Your task to perform on an android device: Clear the shopping cart on bestbuy.com. Add "razer kraken" to the cart on bestbuy.com Image 0: 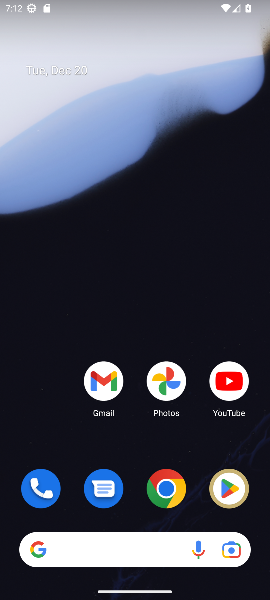
Step 0: press home button
Your task to perform on an android device: Clear the shopping cart on bestbuy.com. Add "razer kraken" to the cart on bestbuy.com Image 1: 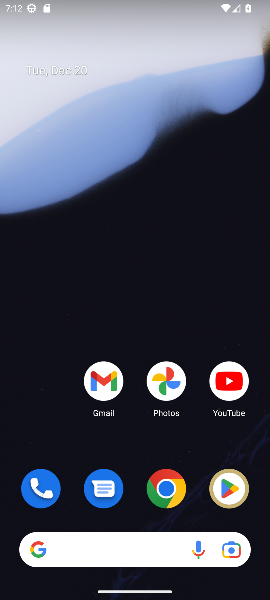
Step 1: drag from (61, 437) to (50, 45)
Your task to perform on an android device: Clear the shopping cart on bestbuy.com. Add "razer kraken" to the cart on bestbuy.com Image 2: 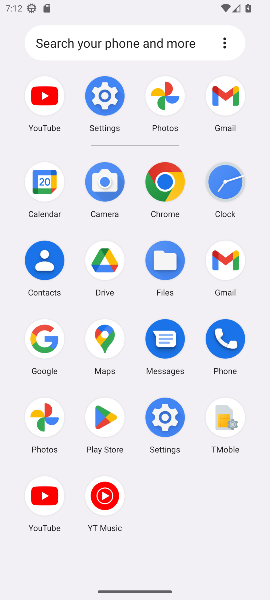
Step 2: click (41, 340)
Your task to perform on an android device: Clear the shopping cart on bestbuy.com. Add "razer kraken" to the cart on bestbuy.com Image 3: 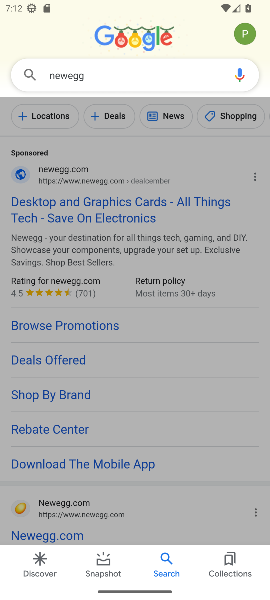
Step 3: click (93, 72)
Your task to perform on an android device: Clear the shopping cart on bestbuy.com. Add "razer kraken" to the cart on bestbuy.com Image 4: 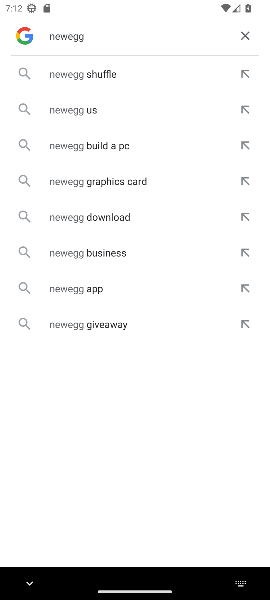
Step 4: click (242, 36)
Your task to perform on an android device: Clear the shopping cart on bestbuy.com. Add "razer kraken" to the cart on bestbuy.com Image 5: 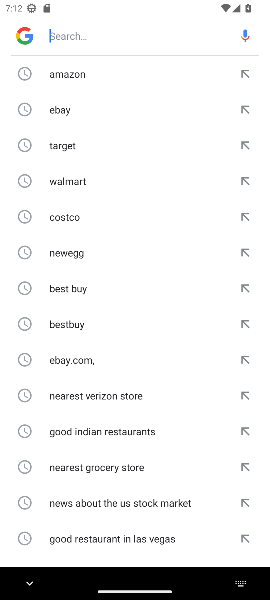
Step 5: type "bestbuy.com"
Your task to perform on an android device: Clear the shopping cart on bestbuy.com. Add "razer kraken" to the cart on bestbuy.com Image 6: 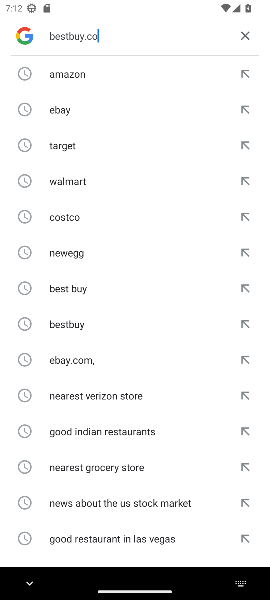
Step 6: press enter
Your task to perform on an android device: Clear the shopping cart on bestbuy.com. Add "razer kraken" to the cart on bestbuy.com Image 7: 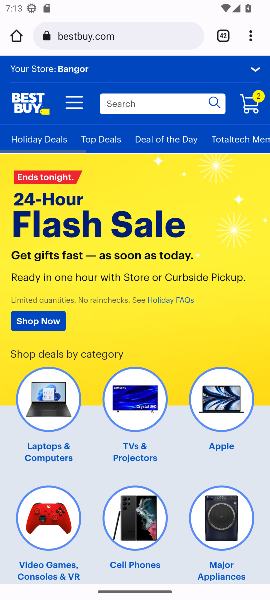
Step 7: click (250, 101)
Your task to perform on an android device: Clear the shopping cart on bestbuy.com. Add "razer kraken" to the cart on bestbuy.com Image 8: 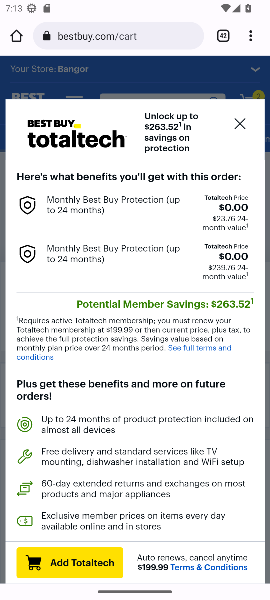
Step 8: click (238, 121)
Your task to perform on an android device: Clear the shopping cart on bestbuy.com. Add "razer kraken" to the cart on bestbuy.com Image 9: 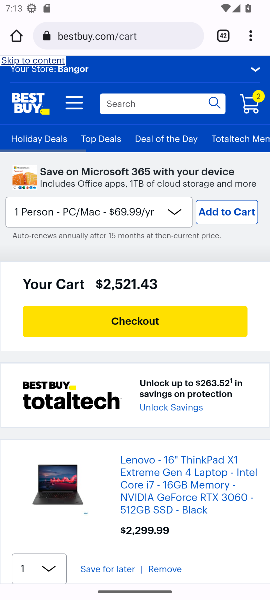
Step 9: drag from (160, 430) to (170, 217)
Your task to perform on an android device: Clear the shopping cart on bestbuy.com. Add "razer kraken" to the cart on bestbuy.com Image 10: 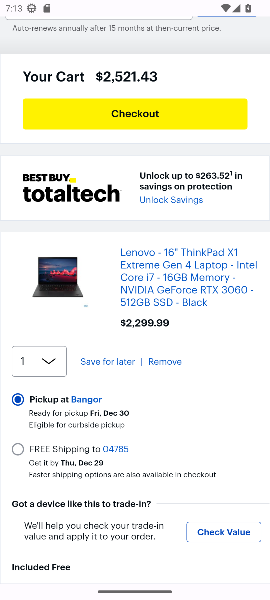
Step 10: click (160, 359)
Your task to perform on an android device: Clear the shopping cart on bestbuy.com. Add "razer kraken" to the cart on bestbuy.com Image 11: 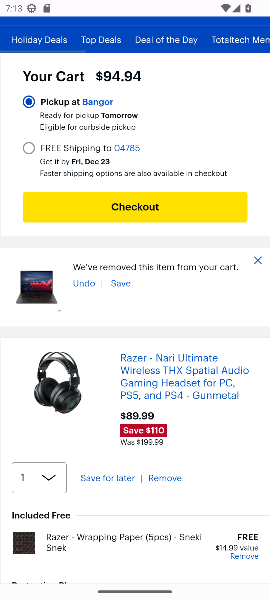
Step 11: click (156, 473)
Your task to perform on an android device: Clear the shopping cart on bestbuy.com. Add "razer kraken" to the cart on bestbuy.com Image 12: 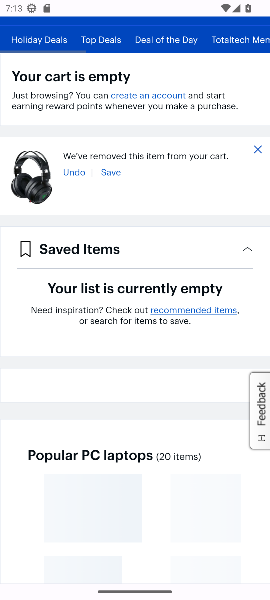
Step 12: drag from (160, 106) to (164, 436)
Your task to perform on an android device: Clear the shopping cart on bestbuy.com. Add "razer kraken" to the cart on bestbuy.com Image 13: 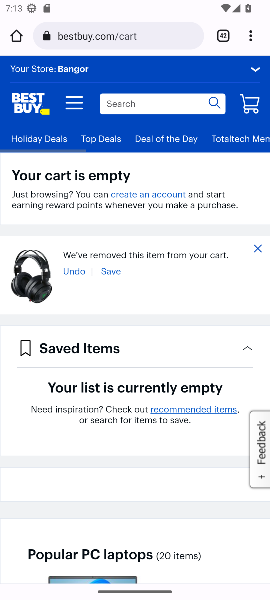
Step 13: click (126, 99)
Your task to perform on an android device: Clear the shopping cart on bestbuy.com. Add "razer kraken" to the cart on bestbuy.com Image 14: 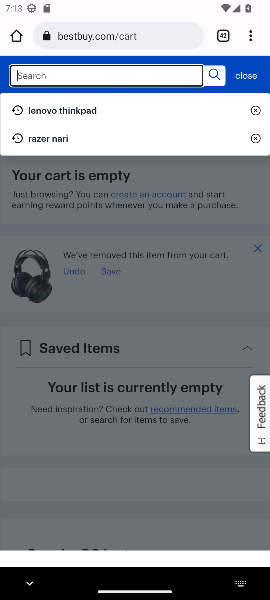
Step 14: type "razer kraken"
Your task to perform on an android device: Clear the shopping cart on bestbuy.com. Add "razer kraken" to the cart on bestbuy.com Image 15: 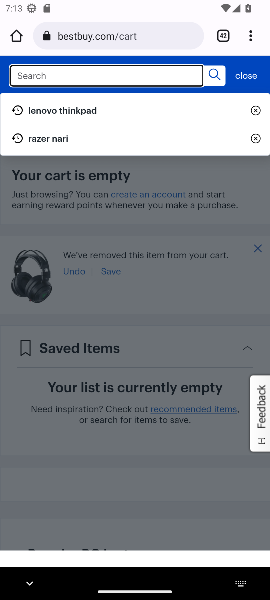
Step 15: press enter
Your task to perform on an android device: Clear the shopping cart on bestbuy.com. Add "razer kraken" to the cart on bestbuy.com Image 16: 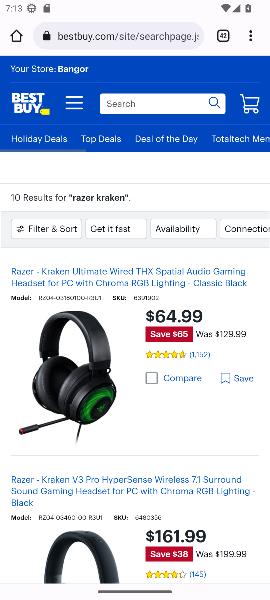
Step 16: drag from (190, 439) to (181, 223)
Your task to perform on an android device: Clear the shopping cart on bestbuy.com. Add "razer kraken" to the cart on bestbuy.com Image 17: 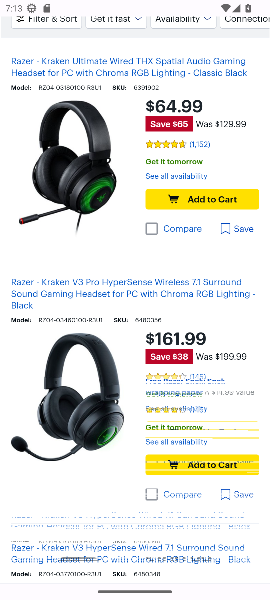
Step 17: drag from (112, 159) to (112, 436)
Your task to perform on an android device: Clear the shopping cart on bestbuy.com. Add "razer kraken" to the cart on bestbuy.com Image 18: 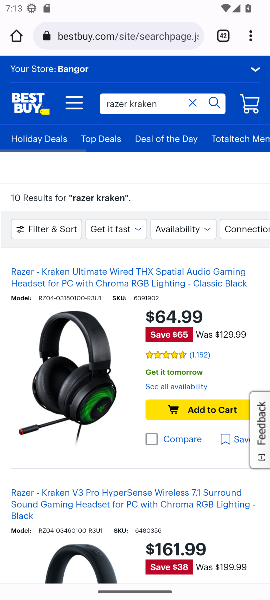
Step 18: click (190, 407)
Your task to perform on an android device: Clear the shopping cart on bestbuy.com. Add "razer kraken" to the cart on bestbuy.com Image 19: 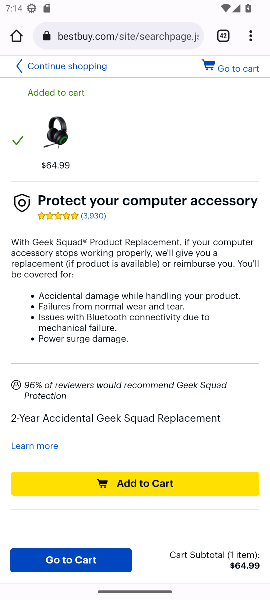
Step 19: task complete